Your task to perform on an android device: Open Youtube and go to "Your channel" Image 0: 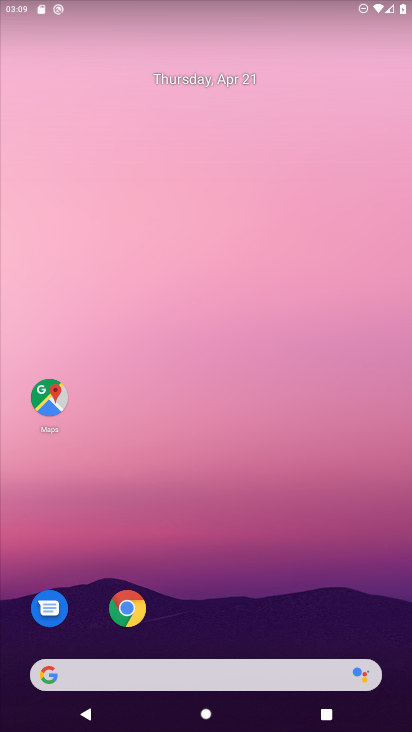
Step 0: drag from (206, 533) to (238, 179)
Your task to perform on an android device: Open Youtube and go to "Your channel" Image 1: 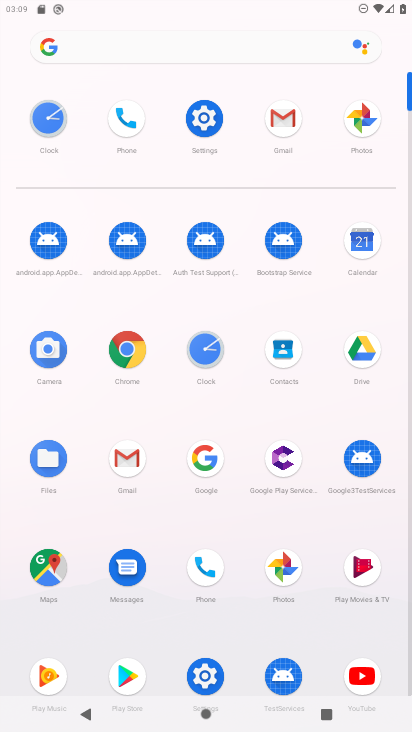
Step 1: click (365, 671)
Your task to perform on an android device: Open Youtube and go to "Your channel" Image 2: 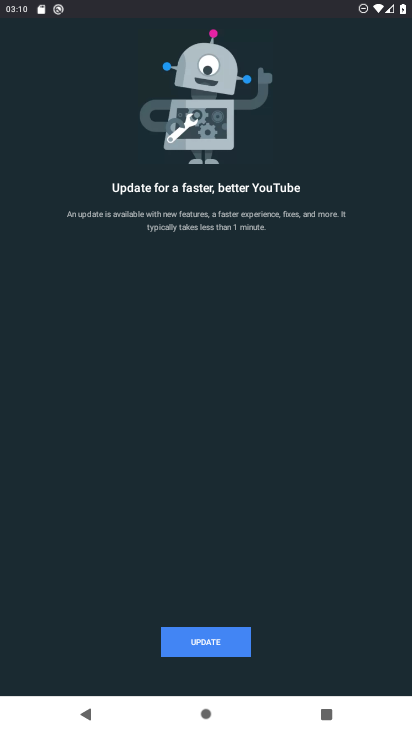
Step 2: task complete